Your task to perform on an android device: Go to Google Image 0: 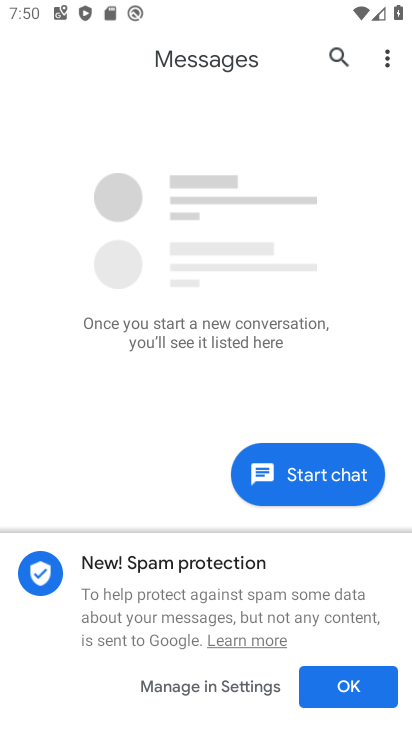
Step 0: press home button
Your task to perform on an android device: Go to Google Image 1: 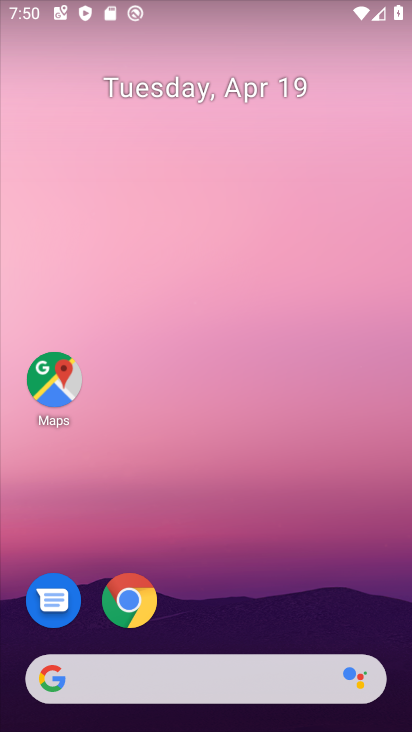
Step 1: drag from (296, 627) to (215, 31)
Your task to perform on an android device: Go to Google Image 2: 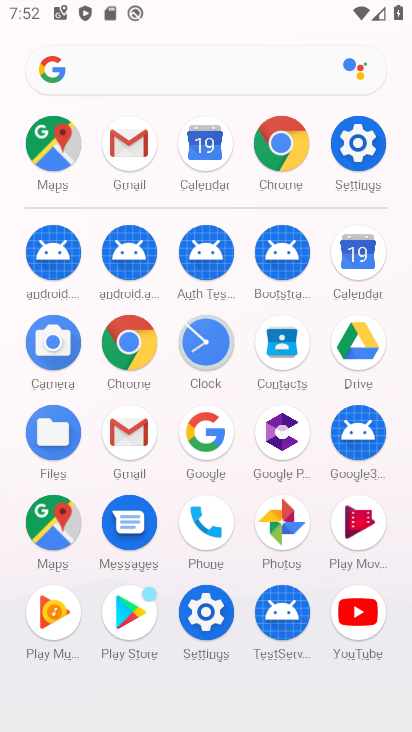
Step 2: click (186, 438)
Your task to perform on an android device: Go to Google Image 3: 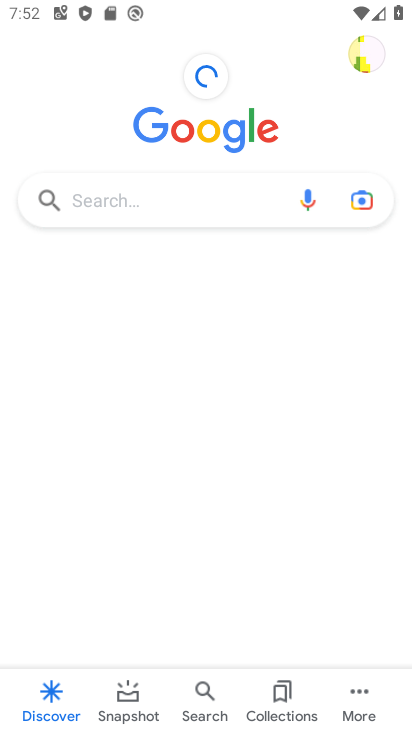
Step 3: task complete